Your task to perform on an android device: toggle location history Image 0: 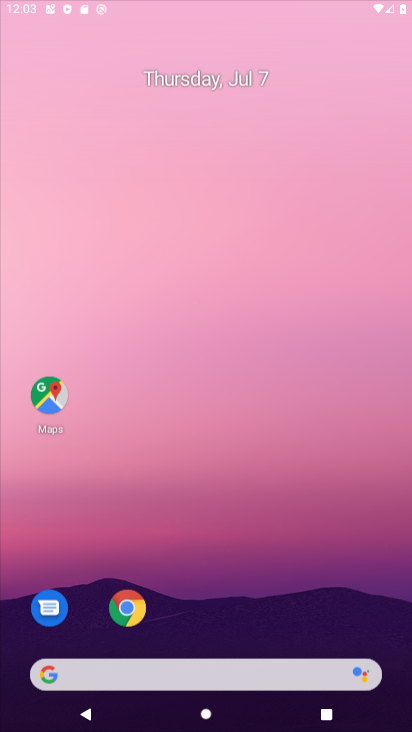
Step 0: click (281, 128)
Your task to perform on an android device: toggle location history Image 1: 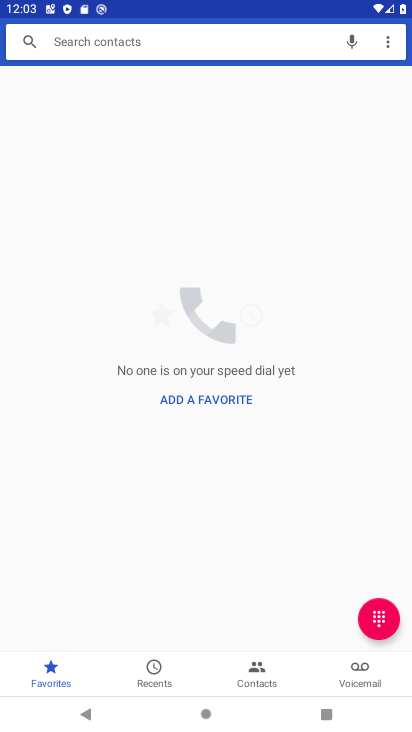
Step 1: press home button
Your task to perform on an android device: toggle location history Image 2: 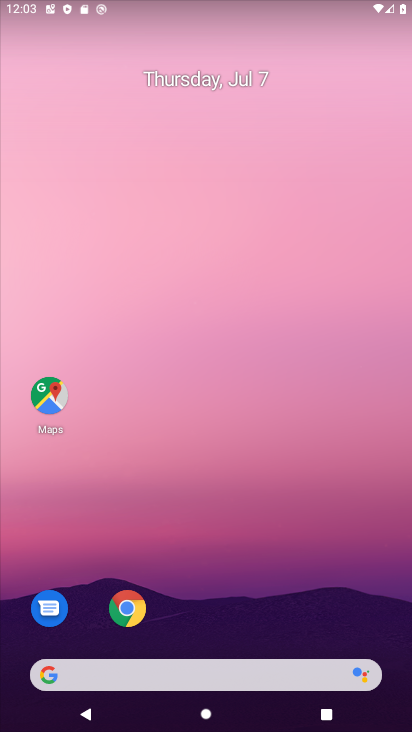
Step 2: drag from (135, 650) to (172, 316)
Your task to perform on an android device: toggle location history Image 3: 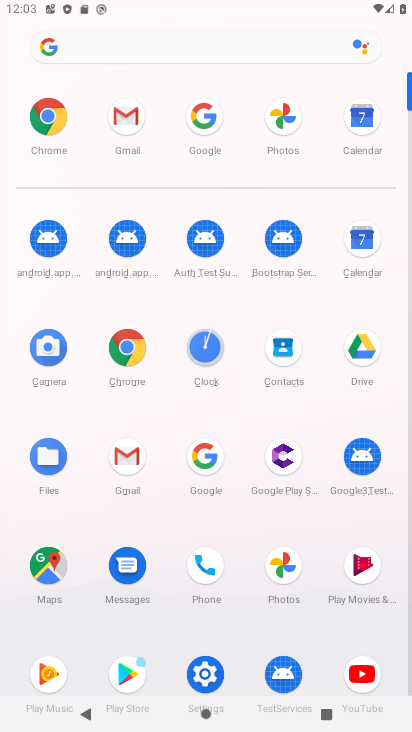
Step 3: click (207, 667)
Your task to perform on an android device: toggle location history Image 4: 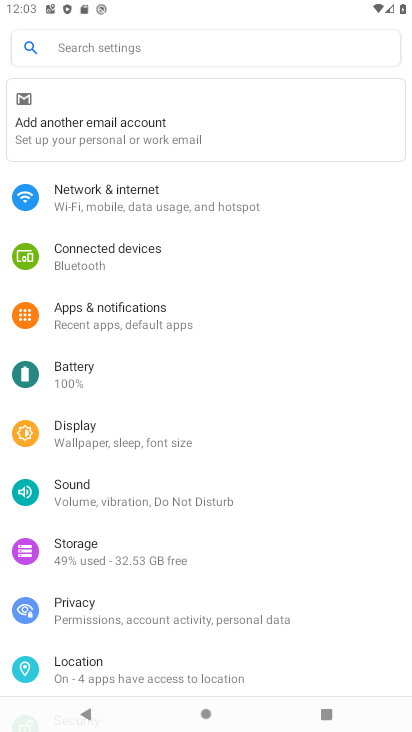
Step 4: click (85, 663)
Your task to perform on an android device: toggle location history Image 5: 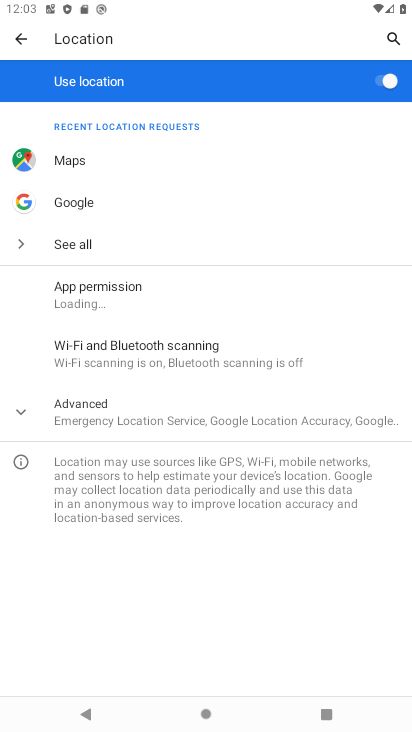
Step 5: click (104, 418)
Your task to perform on an android device: toggle location history Image 6: 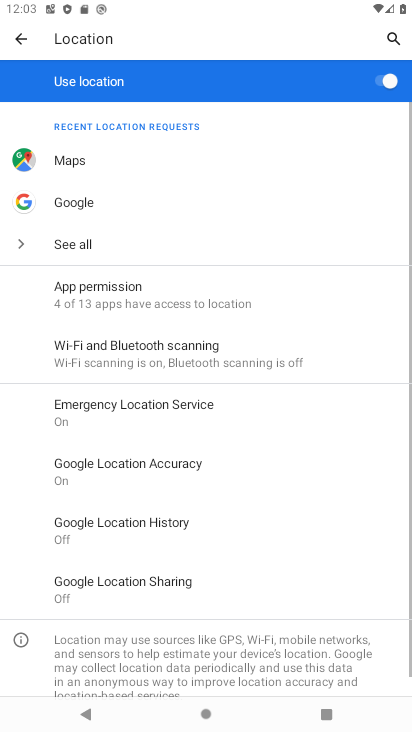
Step 6: click (145, 522)
Your task to perform on an android device: toggle location history Image 7: 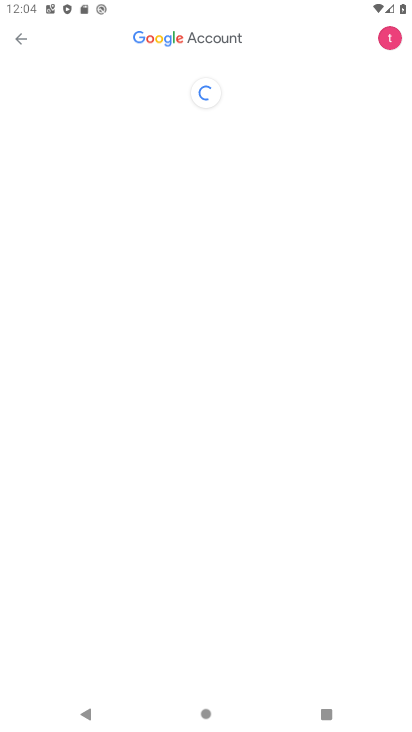
Step 7: click (371, 515)
Your task to perform on an android device: toggle location history Image 8: 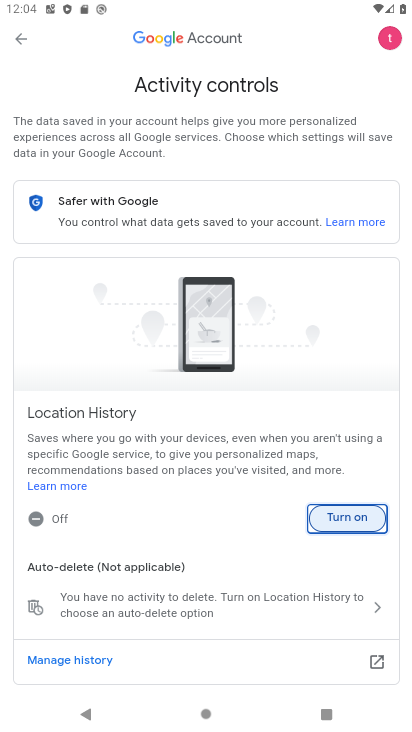
Step 8: click (357, 511)
Your task to perform on an android device: toggle location history Image 9: 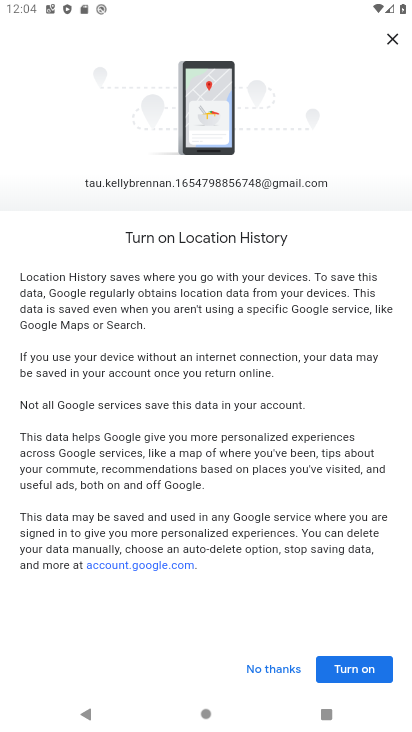
Step 9: click (358, 661)
Your task to perform on an android device: toggle location history Image 10: 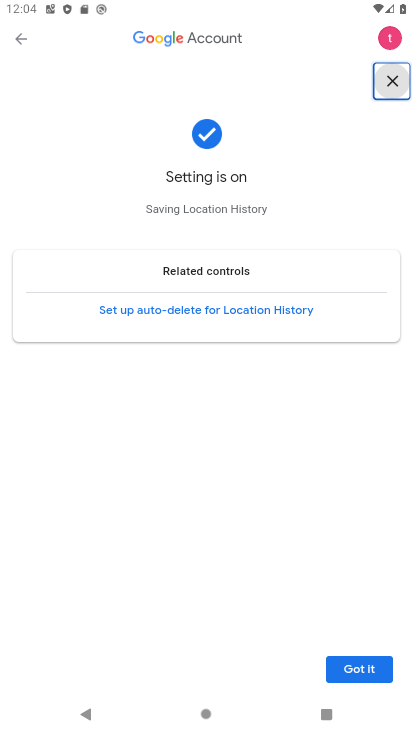
Step 10: click (357, 666)
Your task to perform on an android device: toggle location history Image 11: 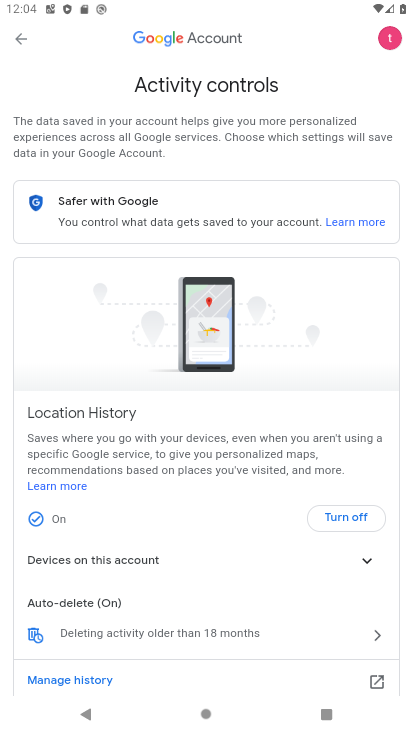
Step 11: task complete